Your task to perform on an android device: What time is it in Sydney? Image 0: 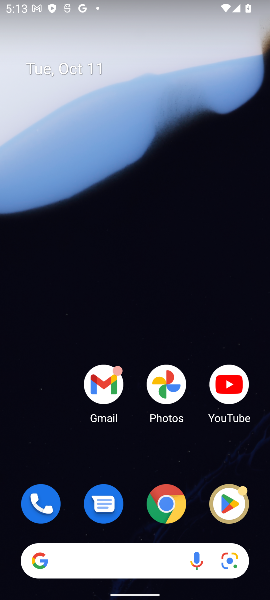
Step 0: click (108, 557)
Your task to perform on an android device: What time is it in Sydney? Image 1: 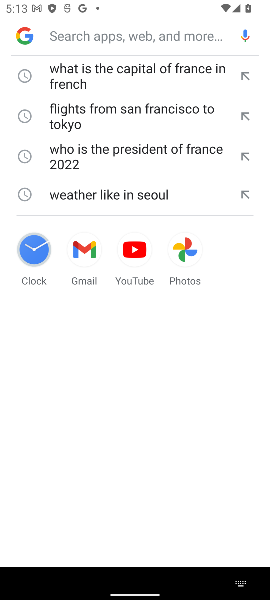
Step 1: click (97, 38)
Your task to perform on an android device: What time is it in Sydney? Image 2: 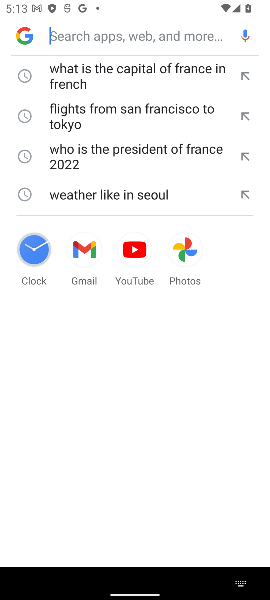
Step 2: type "What time is it in Sydney?"
Your task to perform on an android device: What time is it in Sydney? Image 3: 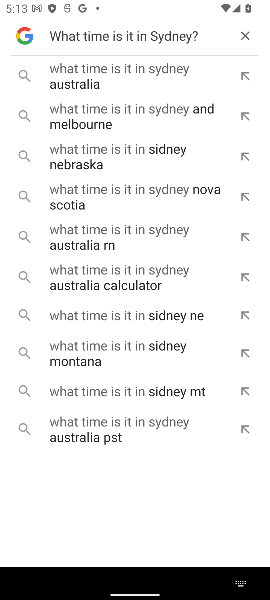
Step 3: click (132, 74)
Your task to perform on an android device: What time is it in Sydney? Image 4: 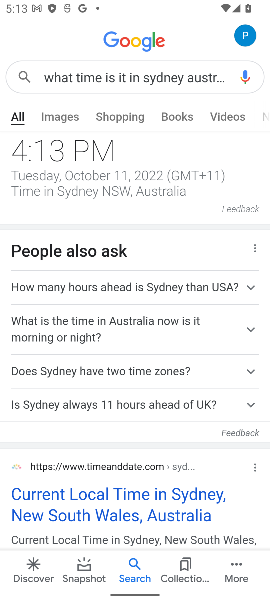
Step 4: task complete